Your task to perform on an android device: open app "WhatsApp Messenger" (install if not already installed) Image 0: 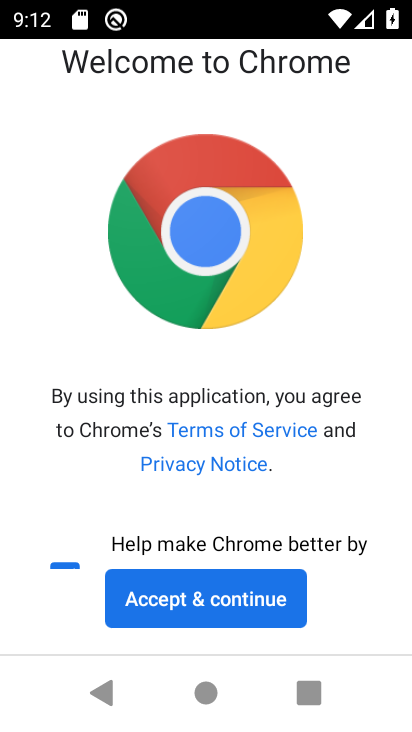
Step 0: press home button
Your task to perform on an android device: open app "WhatsApp Messenger" (install if not already installed) Image 1: 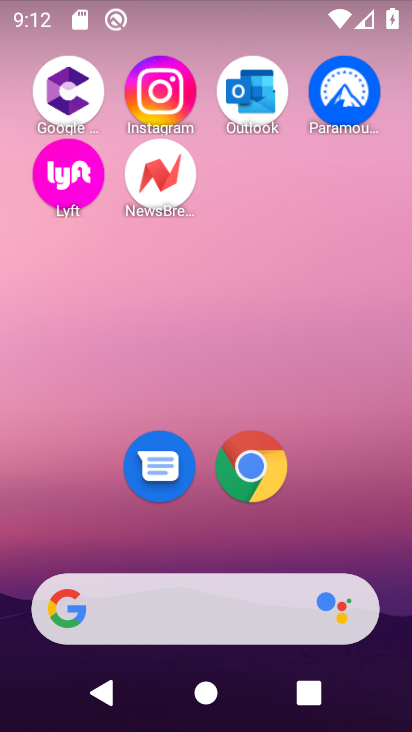
Step 1: drag from (233, 690) to (220, 101)
Your task to perform on an android device: open app "WhatsApp Messenger" (install if not already installed) Image 2: 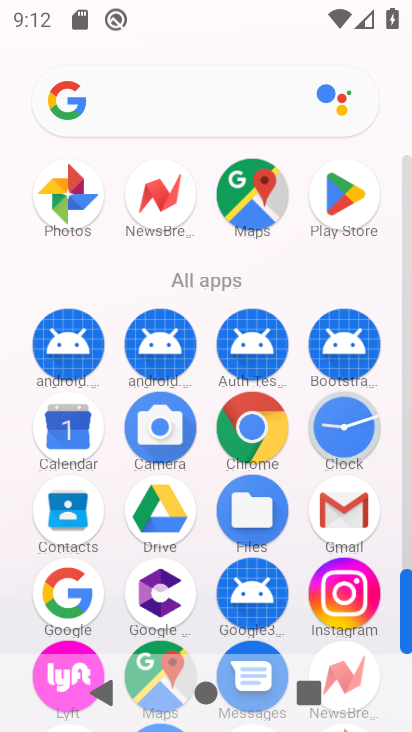
Step 2: click (340, 197)
Your task to perform on an android device: open app "WhatsApp Messenger" (install if not already installed) Image 3: 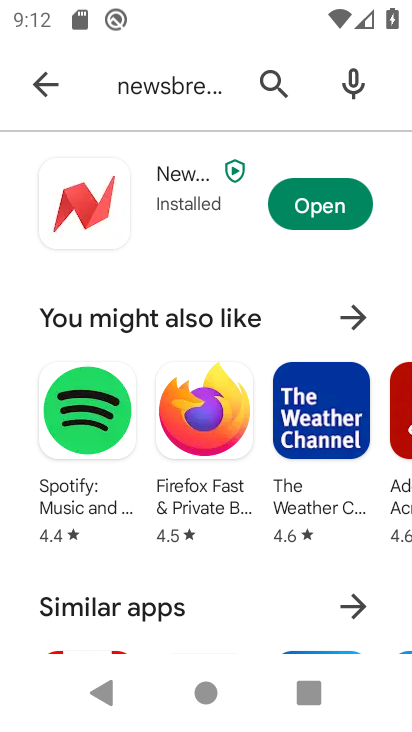
Step 3: click (267, 66)
Your task to perform on an android device: open app "WhatsApp Messenger" (install if not already installed) Image 4: 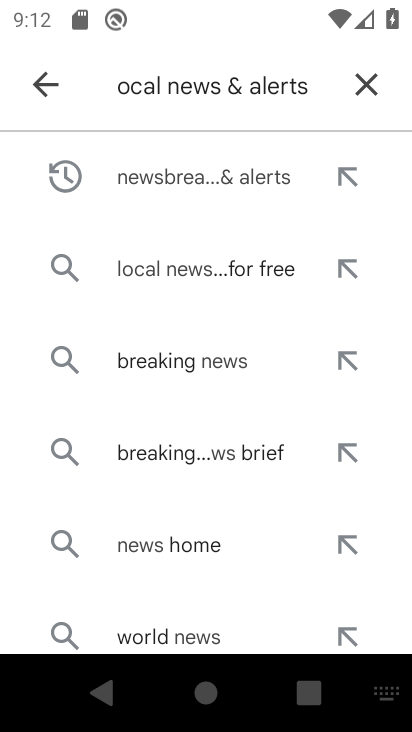
Step 4: click (364, 84)
Your task to perform on an android device: open app "WhatsApp Messenger" (install if not already installed) Image 5: 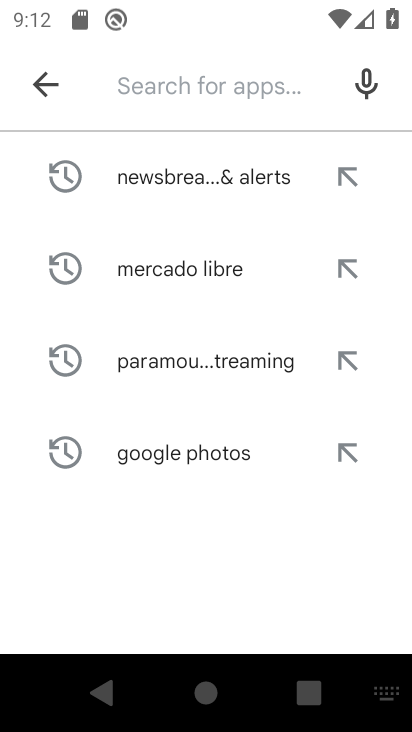
Step 5: type "WhatsApp Messenger"
Your task to perform on an android device: open app "WhatsApp Messenger" (install if not already installed) Image 6: 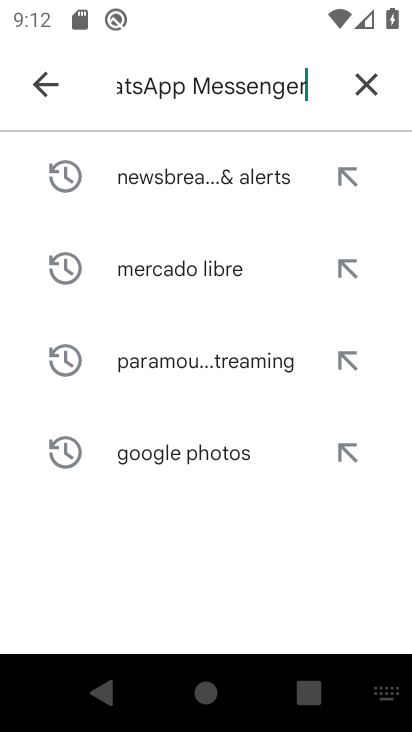
Step 6: type ""
Your task to perform on an android device: open app "WhatsApp Messenger" (install if not already installed) Image 7: 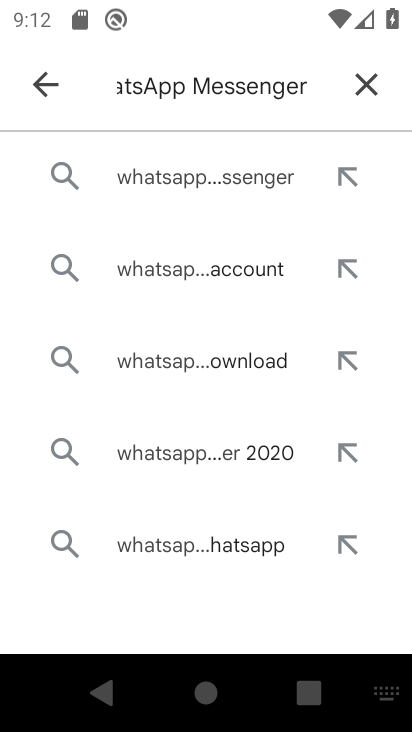
Step 7: click (268, 178)
Your task to perform on an android device: open app "WhatsApp Messenger" (install if not already installed) Image 8: 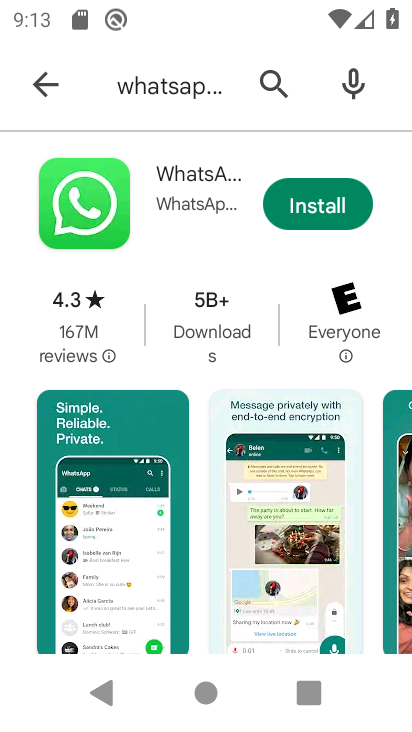
Step 8: click (330, 209)
Your task to perform on an android device: open app "WhatsApp Messenger" (install if not already installed) Image 9: 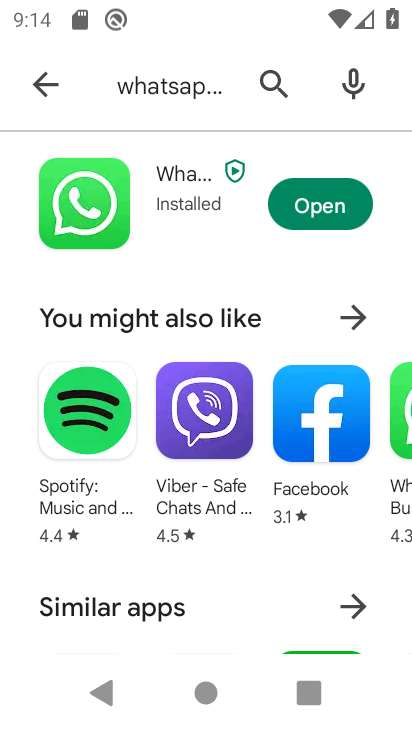
Step 9: click (316, 205)
Your task to perform on an android device: open app "WhatsApp Messenger" (install if not already installed) Image 10: 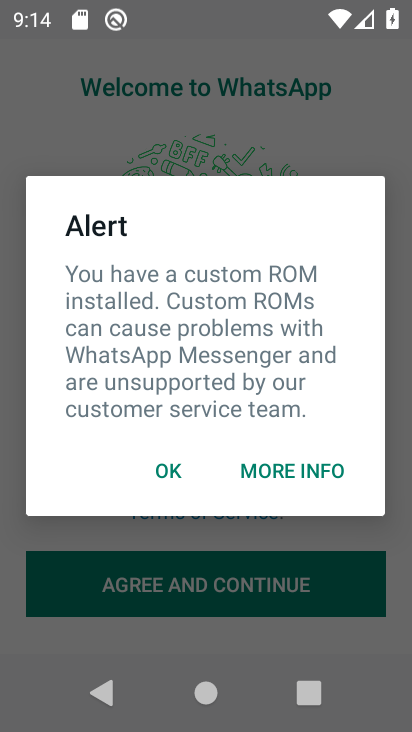
Step 10: task complete